Your task to perform on an android device: see sites visited before in the chrome app Image 0: 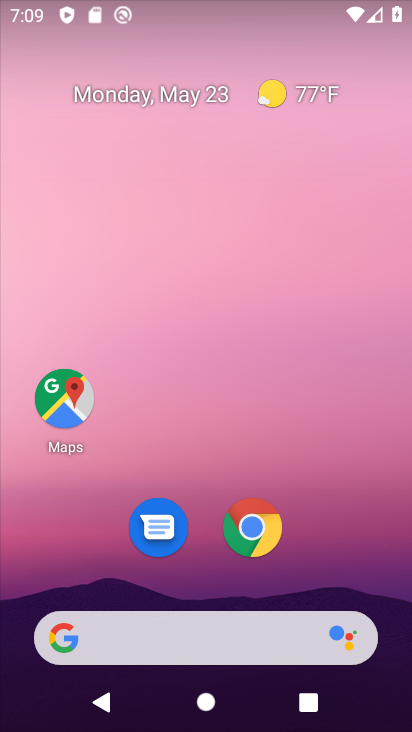
Step 0: drag from (298, 663) to (219, 261)
Your task to perform on an android device: see sites visited before in the chrome app Image 1: 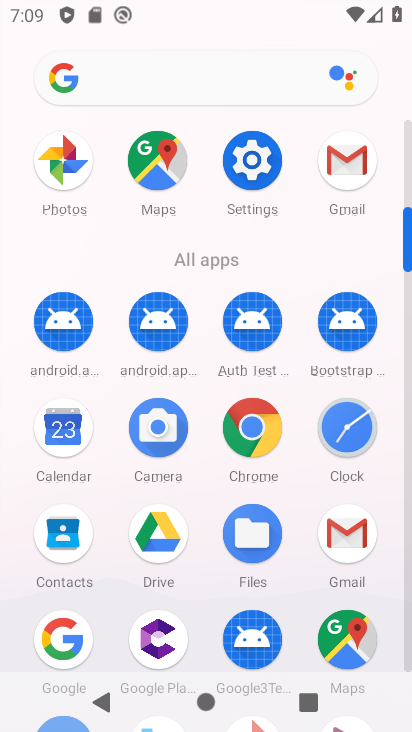
Step 1: click (237, 439)
Your task to perform on an android device: see sites visited before in the chrome app Image 2: 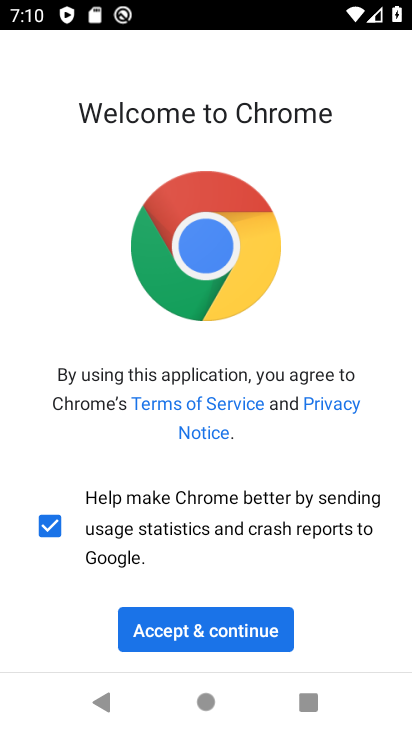
Step 2: click (224, 644)
Your task to perform on an android device: see sites visited before in the chrome app Image 3: 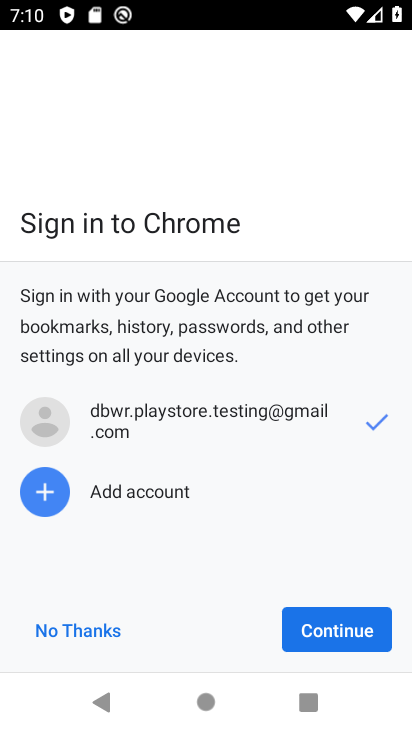
Step 3: click (362, 637)
Your task to perform on an android device: see sites visited before in the chrome app Image 4: 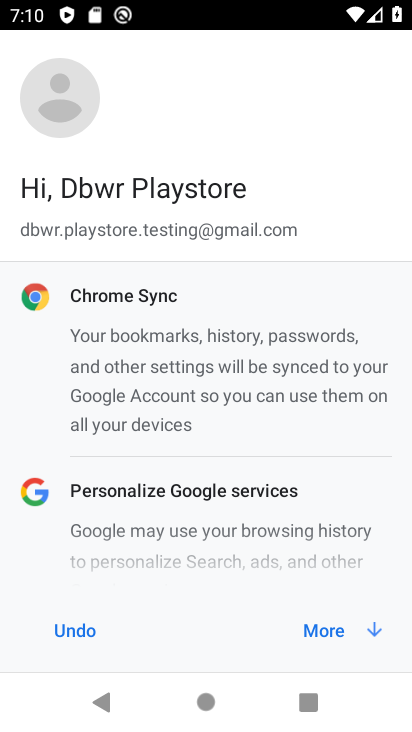
Step 4: click (376, 639)
Your task to perform on an android device: see sites visited before in the chrome app Image 5: 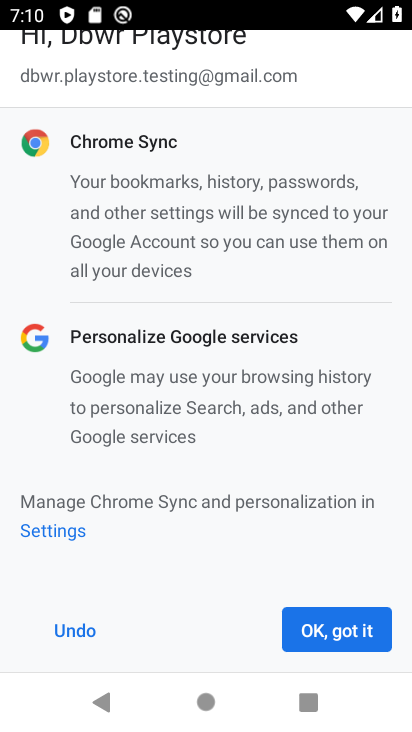
Step 5: click (350, 609)
Your task to perform on an android device: see sites visited before in the chrome app Image 6: 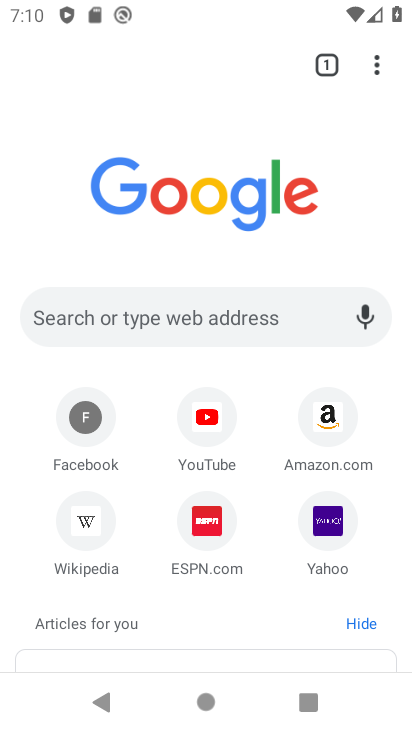
Step 6: click (378, 84)
Your task to perform on an android device: see sites visited before in the chrome app Image 7: 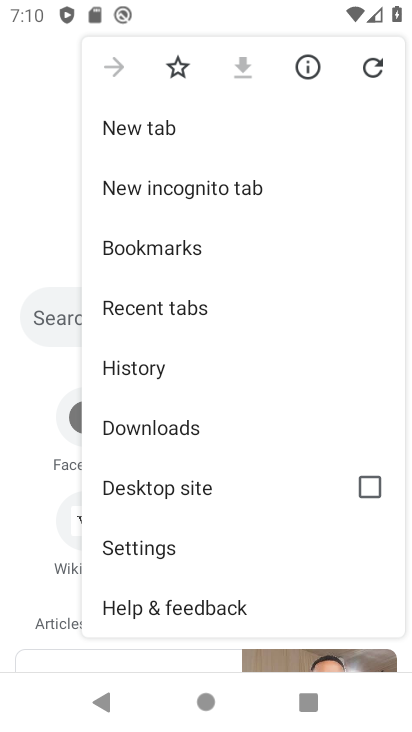
Step 7: click (178, 550)
Your task to perform on an android device: see sites visited before in the chrome app Image 8: 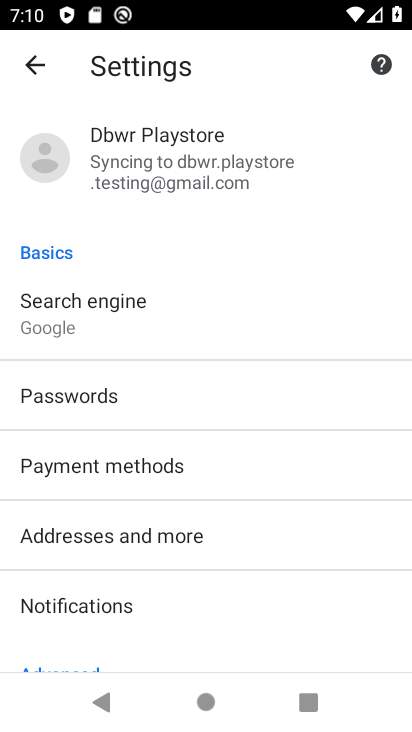
Step 8: drag from (128, 587) to (157, 115)
Your task to perform on an android device: see sites visited before in the chrome app Image 9: 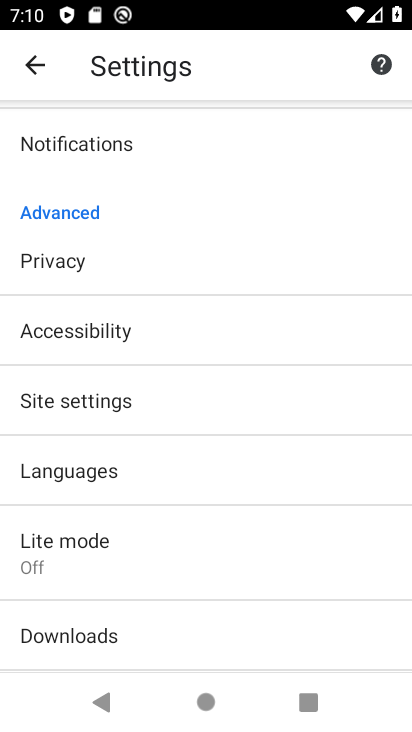
Step 9: click (92, 403)
Your task to perform on an android device: see sites visited before in the chrome app Image 10: 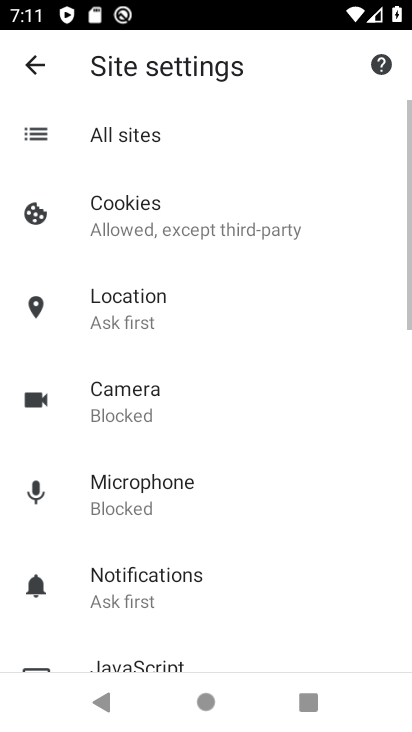
Step 10: click (137, 151)
Your task to perform on an android device: see sites visited before in the chrome app Image 11: 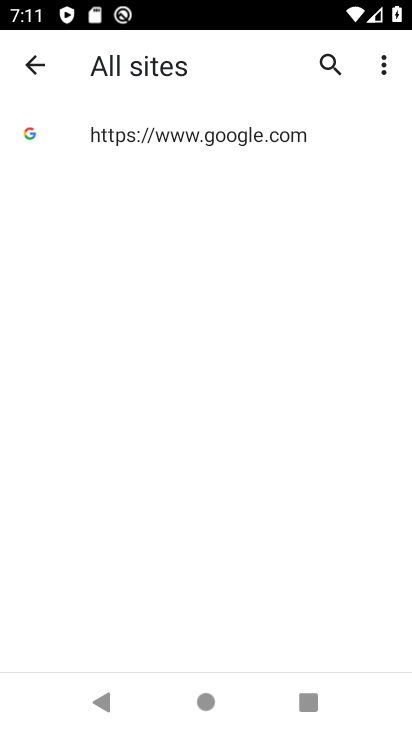
Step 11: task complete